Your task to perform on an android device: Go to calendar. Show me events next week Image 0: 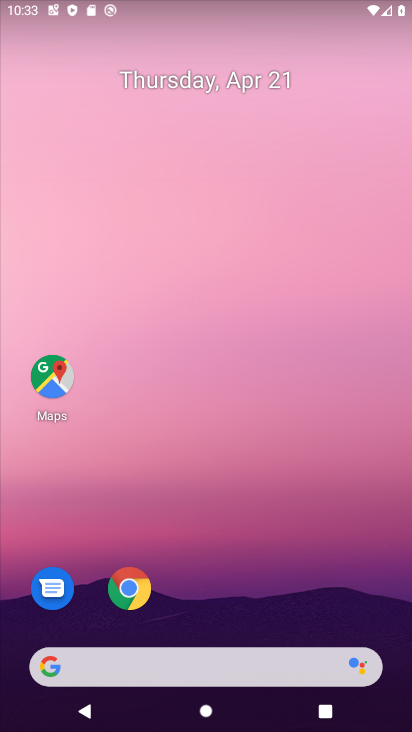
Step 0: drag from (182, 627) to (157, 161)
Your task to perform on an android device: Go to calendar. Show me events next week Image 1: 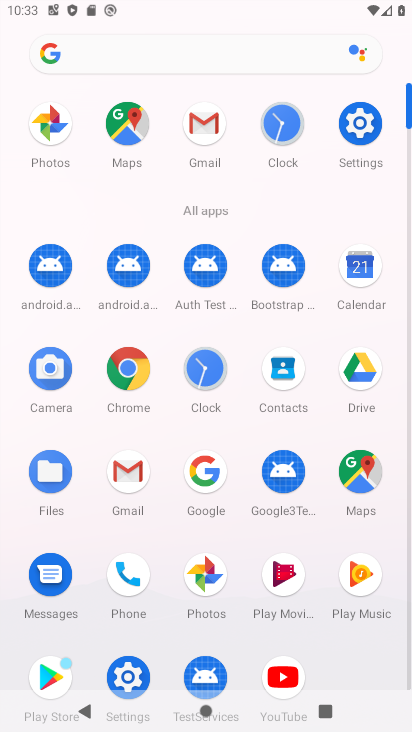
Step 1: click (356, 274)
Your task to perform on an android device: Go to calendar. Show me events next week Image 2: 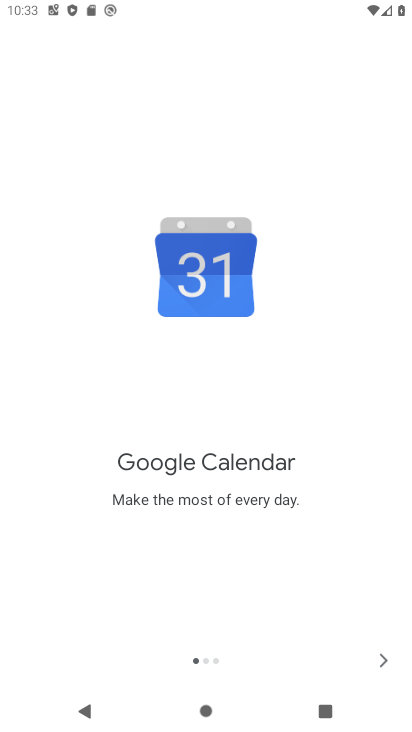
Step 2: click (375, 660)
Your task to perform on an android device: Go to calendar. Show me events next week Image 3: 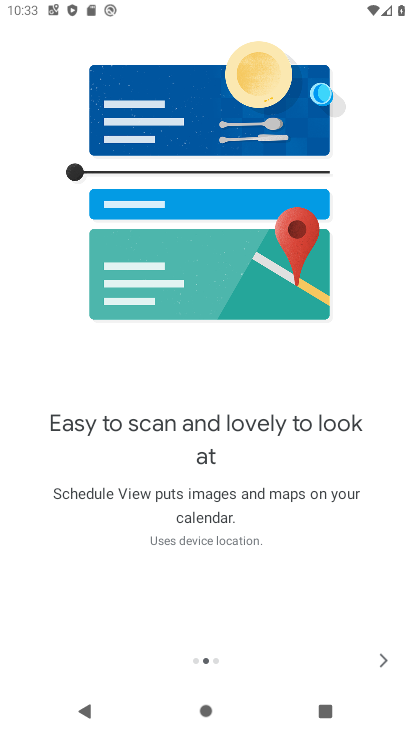
Step 3: click (376, 659)
Your task to perform on an android device: Go to calendar. Show me events next week Image 4: 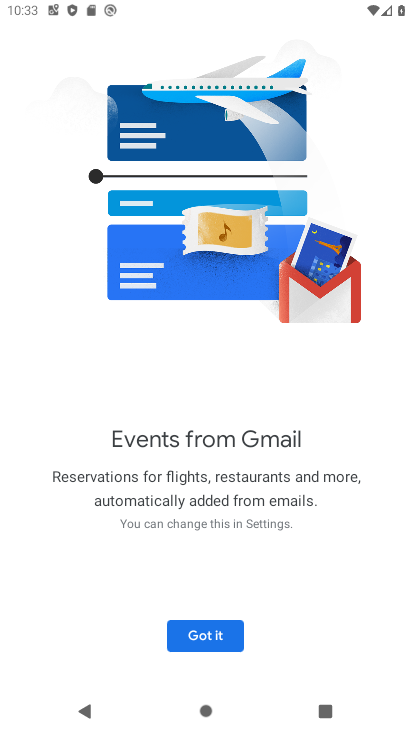
Step 4: click (214, 632)
Your task to perform on an android device: Go to calendar. Show me events next week Image 5: 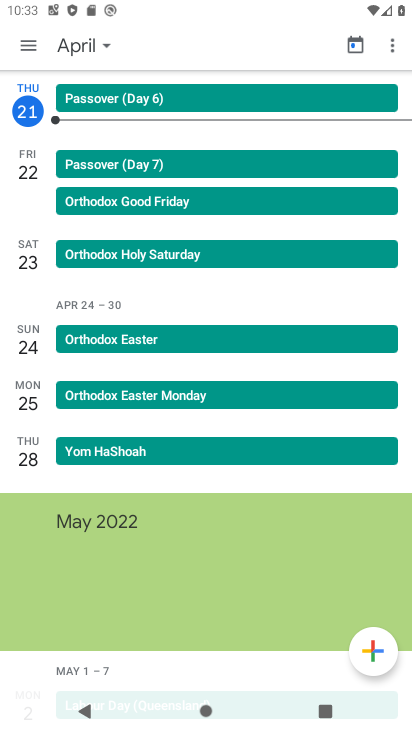
Step 5: click (108, 45)
Your task to perform on an android device: Go to calendar. Show me events next week Image 6: 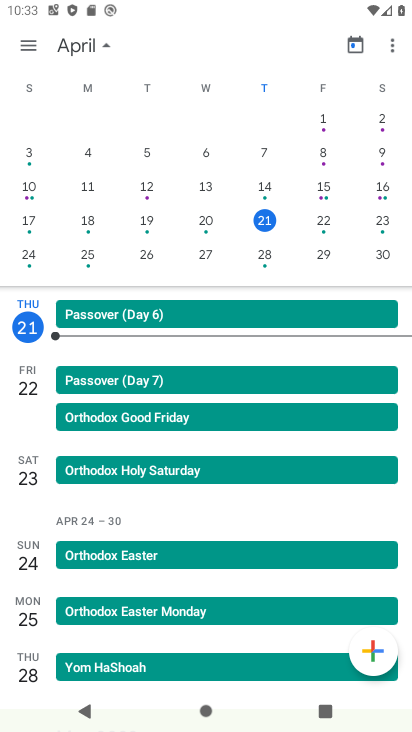
Step 6: click (86, 260)
Your task to perform on an android device: Go to calendar. Show me events next week Image 7: 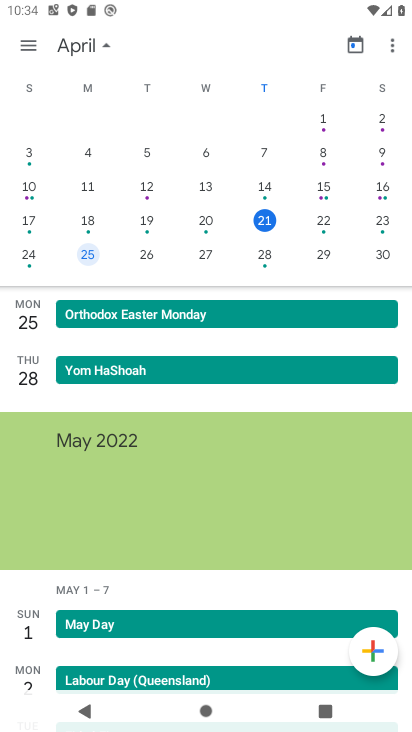
Step 7: click (35, 255)
Your task to perform on an android device: Go to calendar. Show me events next week Image 8: 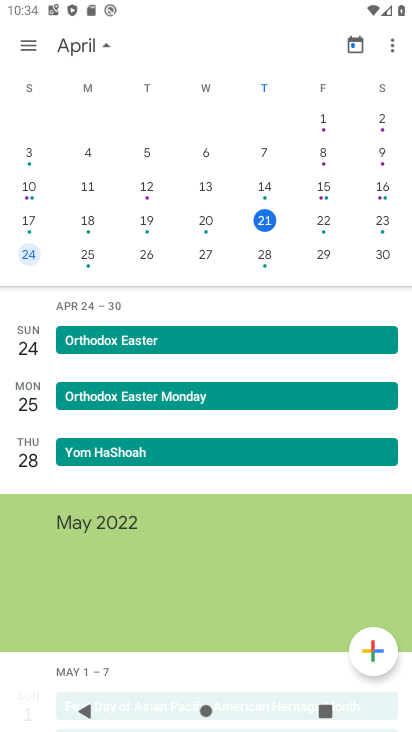
Step 8: click (271, 255)
Your task to perform on an android device: Go to calendar. Show me events next week Image 9: 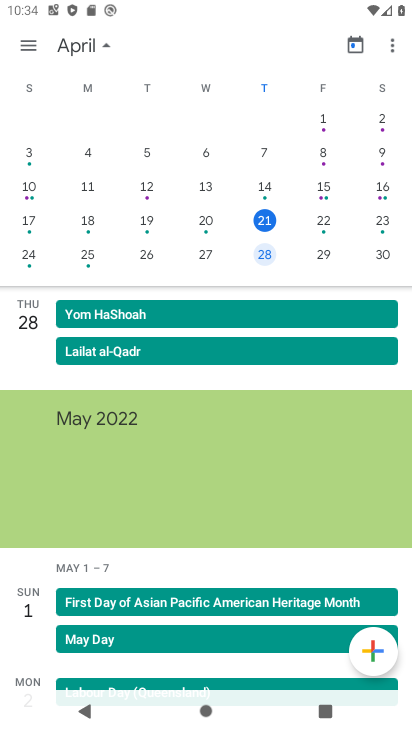
Step 9: click (205, 358)
Your task to perform on an android device: Go to calendar. Show me events next week Image 10: 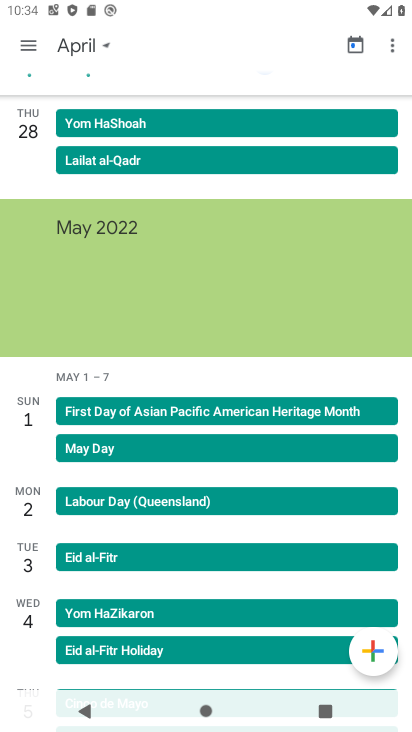
Step 10: task complete